Your task to perform on an android device: make emails show in primary in the gmail app Image 0: 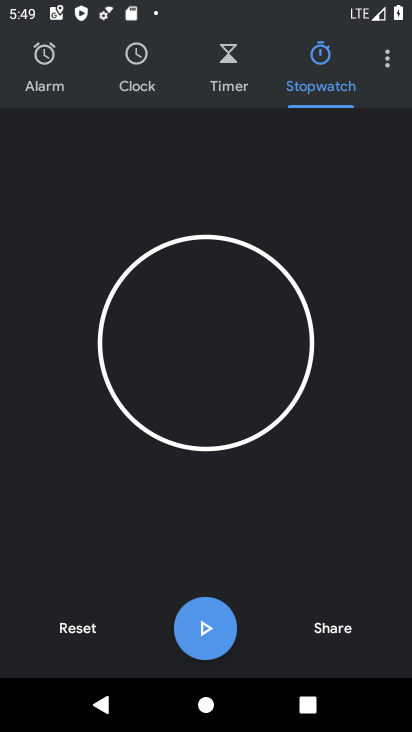
Step 0: press home button
Your task to perform on an android device: make emails show in primary in the gmail app Image 1: 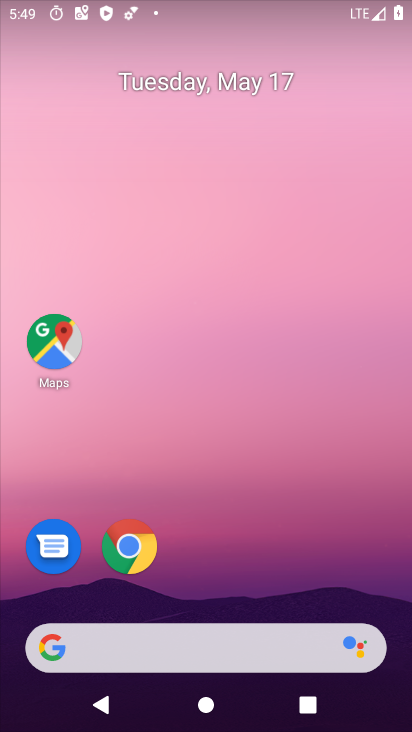
Step 1: drag from (224, 504) to (243, 17)
Your task to perform on an android device: make emails show in primary in the gmail app Image 2: 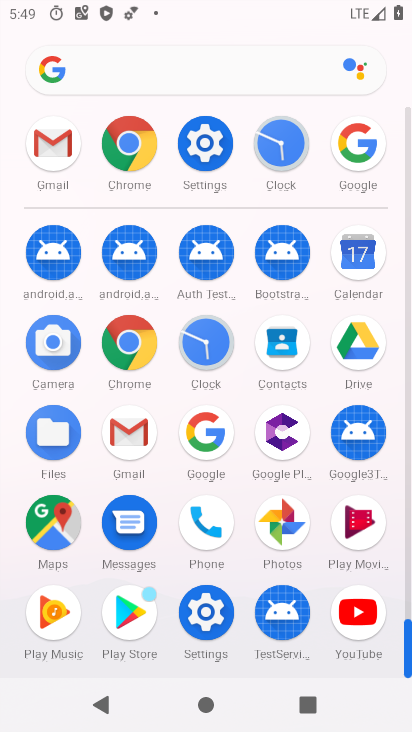
Step 2: click (132, 451)
Your task to perform on an android device: make emails show in primary in the gmail app Image 3: 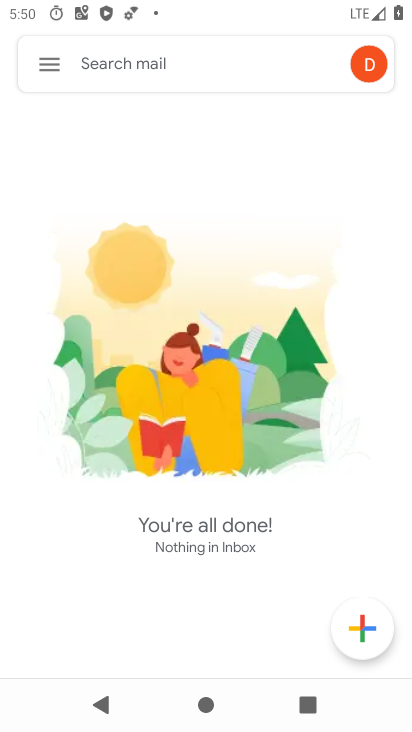
Step 3: click (52, 66)
Your task to perform on an android device: make emails show in primary in the gmail app Image 4: 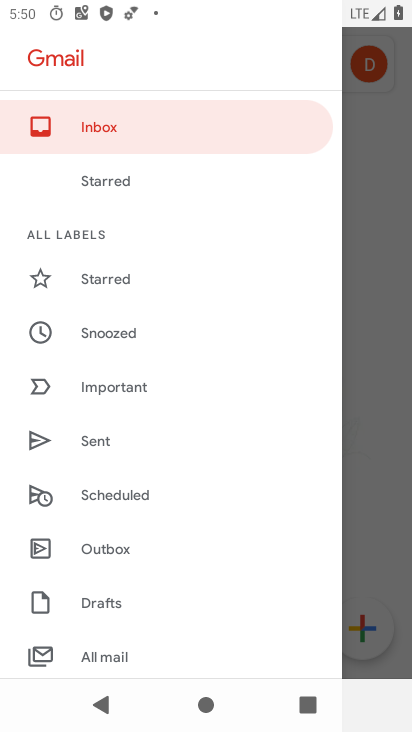
Step 4: drag from (105, 616) to (57, 313)
Your task to perform on an android device: make emails show in primary in the gmail app Image 5: 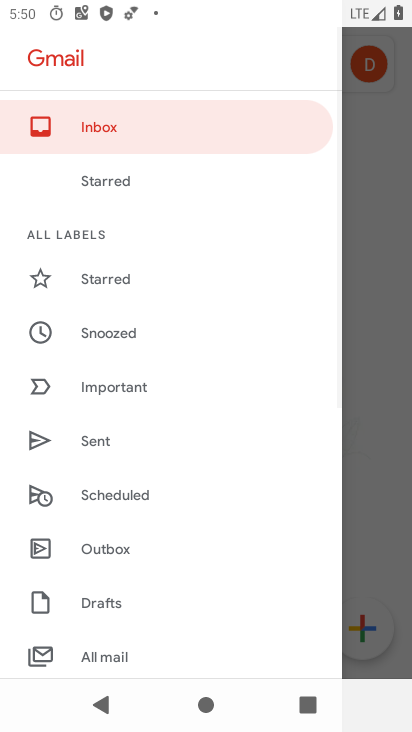
Step 5: drag from (150, 584) to (171, 278)
Your task to perform on an android device: make emails show in primary in the gmail app Image 6: 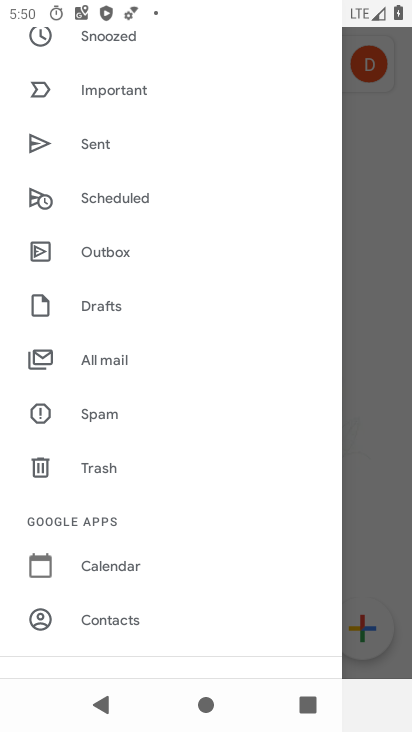
Step 6: drag from (126, 582) to (123, 289)
Your task to perform on an android device: make emails show in primary in the gmail app Image 7: 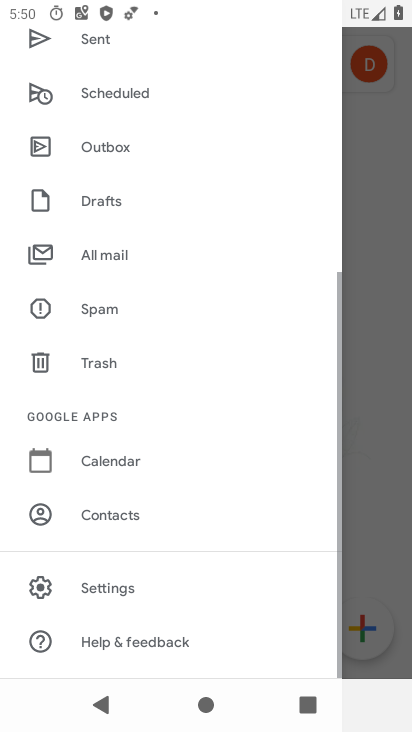
Step 7: click (101, 588)
Your task to perform on an android device: make emails show in primary in the gmail app Image 8: 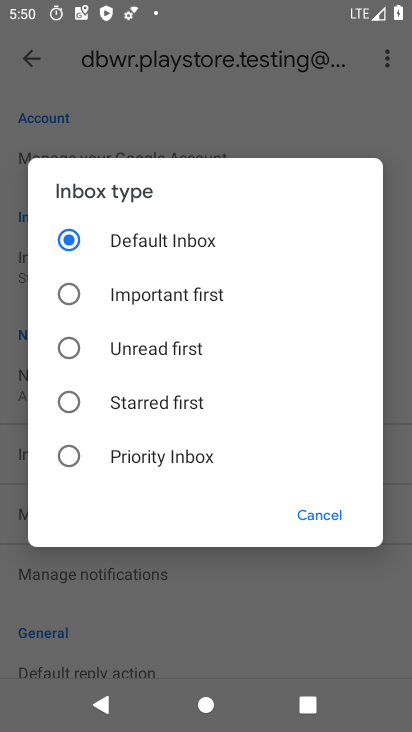
Step 8: task complete